Your task to perform on an android device: check battery use Image 0: 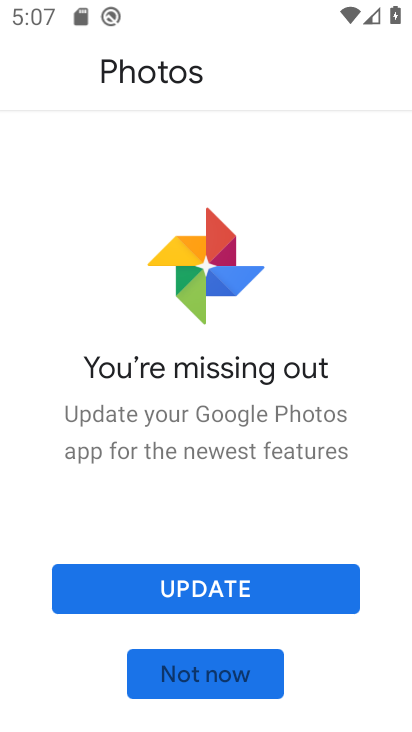
Step 0: drag from (234, 595) to (267, 90)
Your task to perform on an android device: check battery use Image 1: 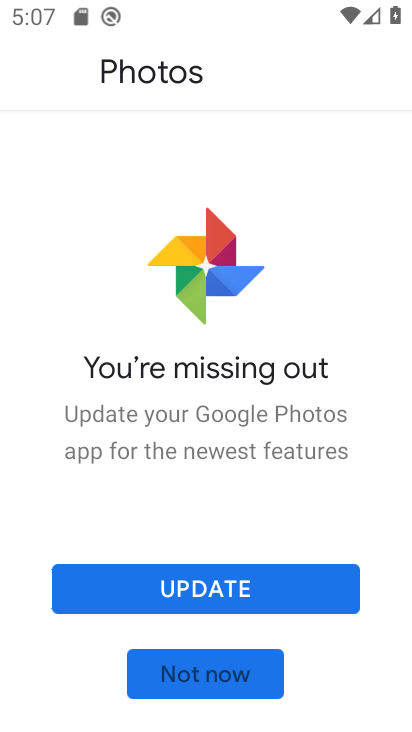
Step 1: press back button
Your task to perform on an android device: check battery use Image 2: 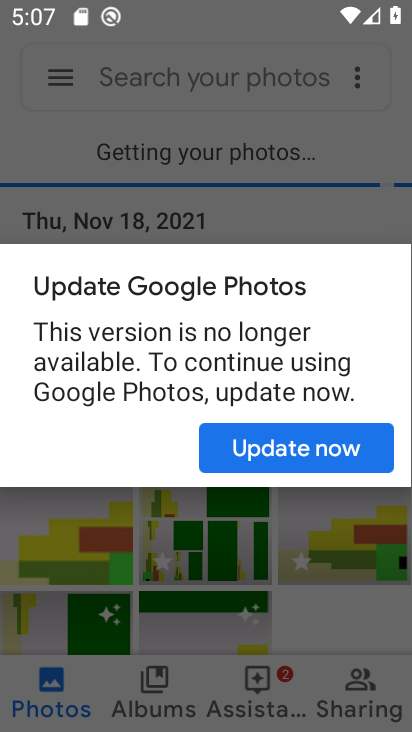
Step 2: press home button
Your task to perform on an android device: check battery use Image 3: 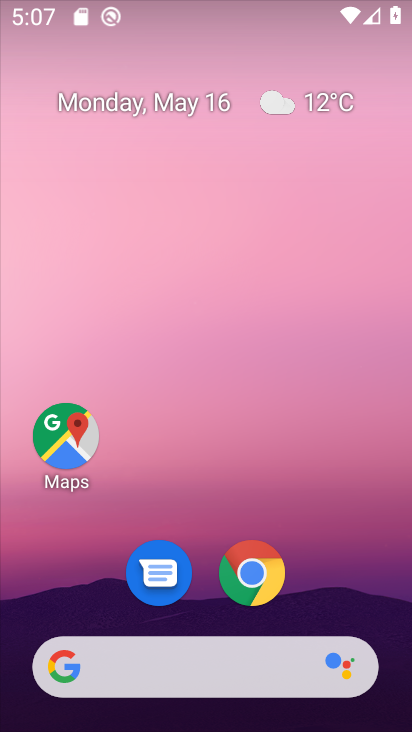
Step 3: drag from (192, 499) to (283, 95)
Your task to perform on an android device: check battery use Image 4: 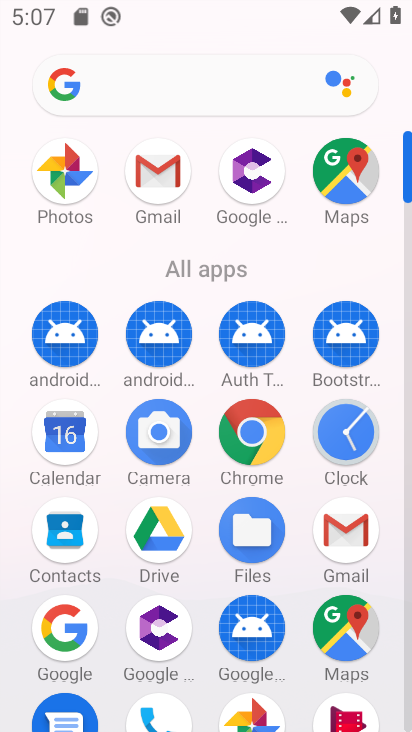
Step 4: drag from (192, 584) to (272, 189)
Your task to perform on an android device: check battery use Image 5: 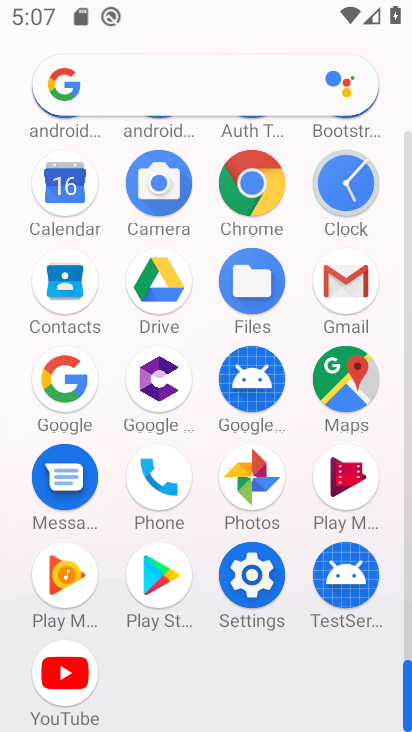
Step 5: click (273, 570)
Your task to perform on an android device: check battery use Image 6: 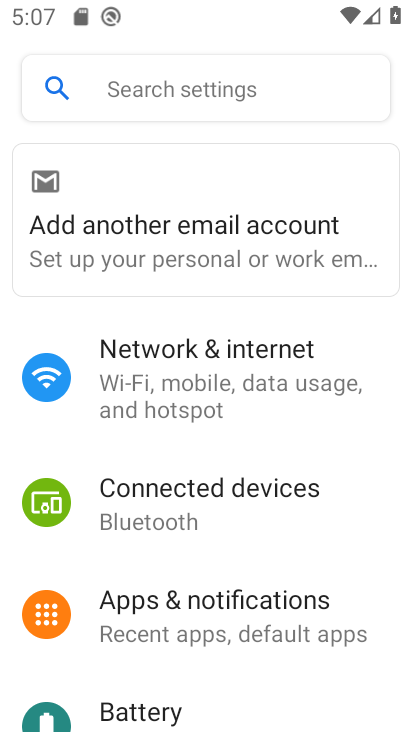
Step 6: click (145, 714)
Your task to perform on an android device: check battery use Image 7: 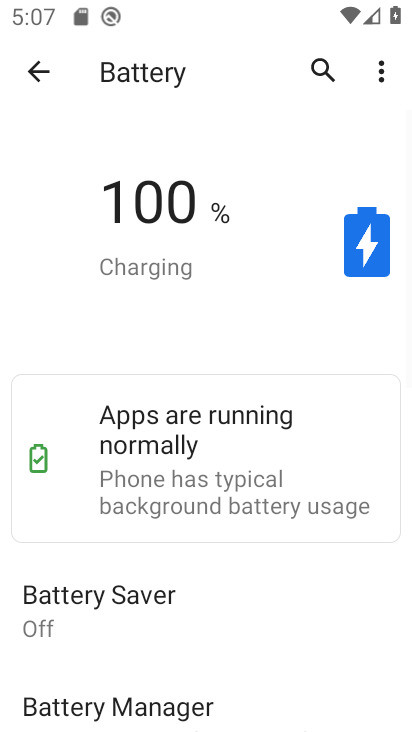
Step 7: click (381, 63)
Your task to perform on an android device: check battery use Image 8: 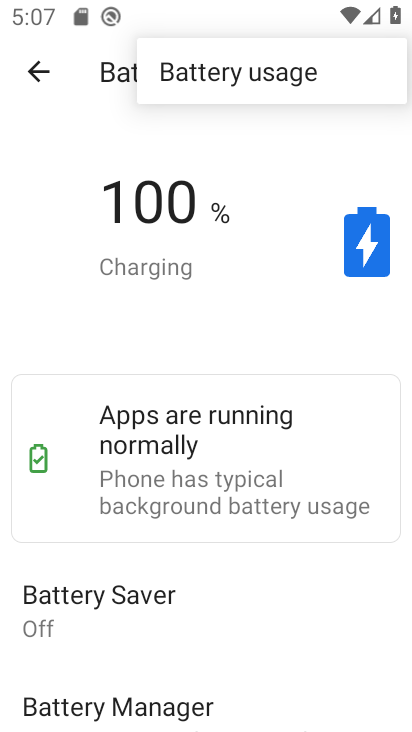
Step 8: click (306, 77)
Your task to perform on an android device: check battery use Image 9: 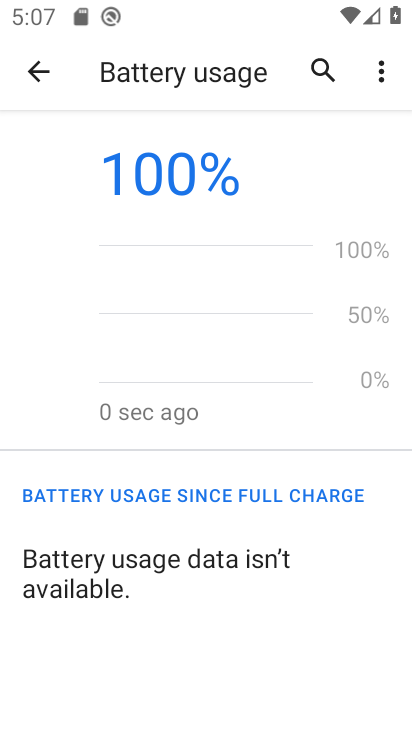
Step 9: task complete